Your task to perform on an android device: What's on my calendar tomorrow? Image 0: 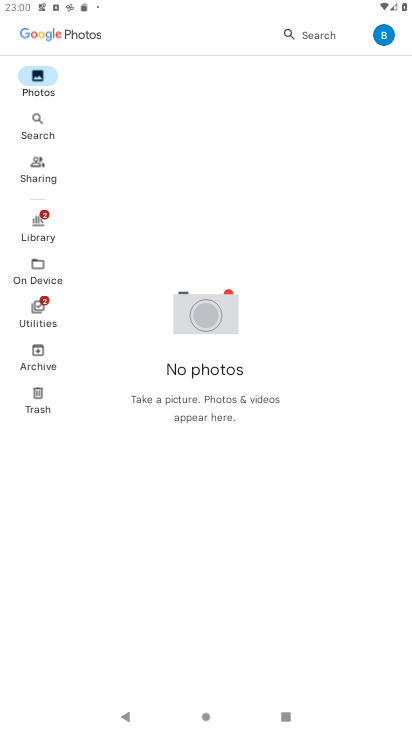
Step 0: press home button
Your task to perform on an android device: What's on my calendar tomorrow? Image 1: 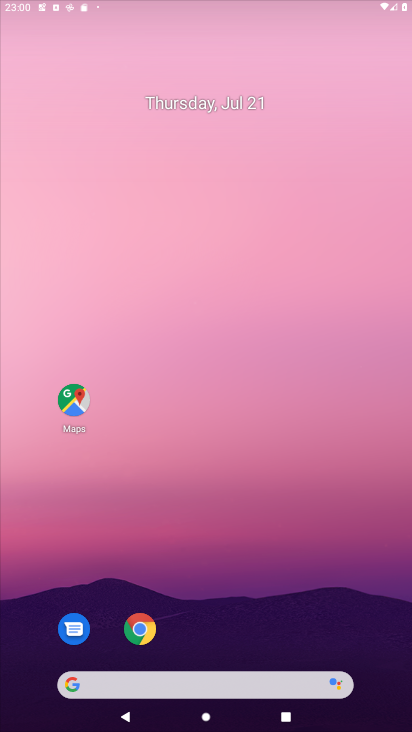
Step 1: drag from (351, 501) to (360, 130)
Your task to perform on an android device: What's on my calendar tomorrow? Image 2: 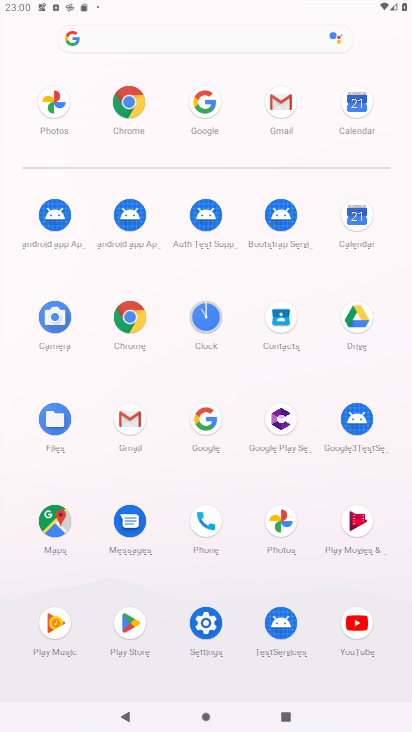
Step 2: click (356, 208)
Your task to perform on an android device: What's on my calendar tomorrow? Image 3: 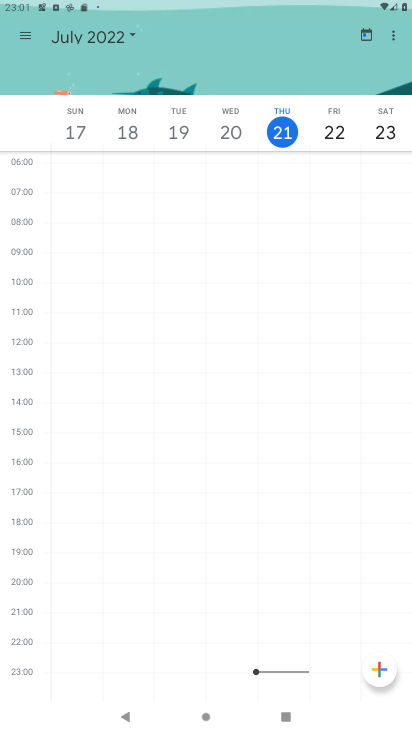
Step 3: click (343, 128)
Your task to perform on an android device: What's on my calendar tomorrow? Image 4: 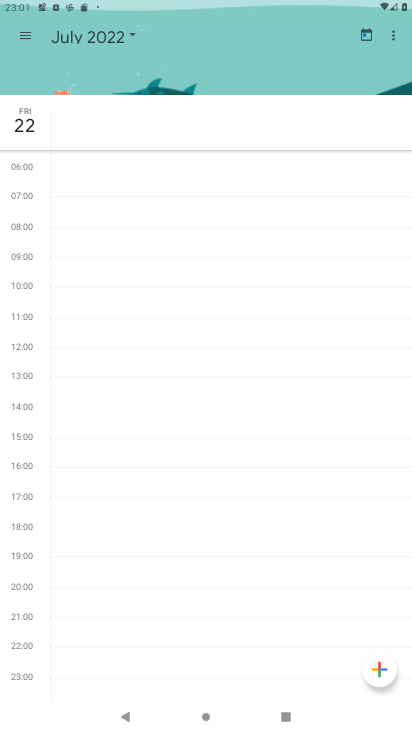
Step 4: task complete